Your task to perform on an android device: Do I have any events tomorrow? Image 0: 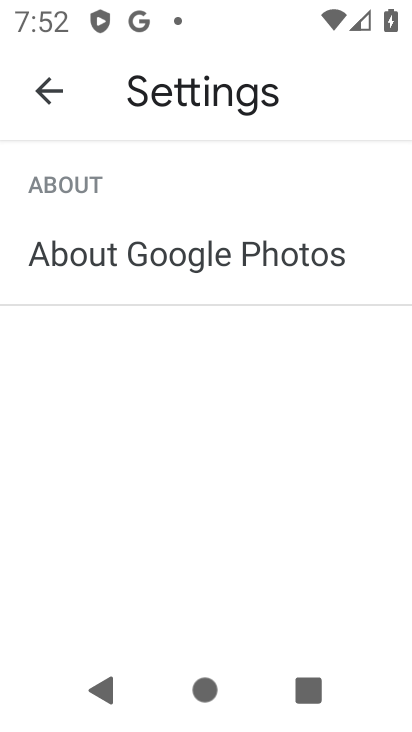
Step 0: press home button
Your task to perform on an android device: Do I have any events tomorrow? Image 1: 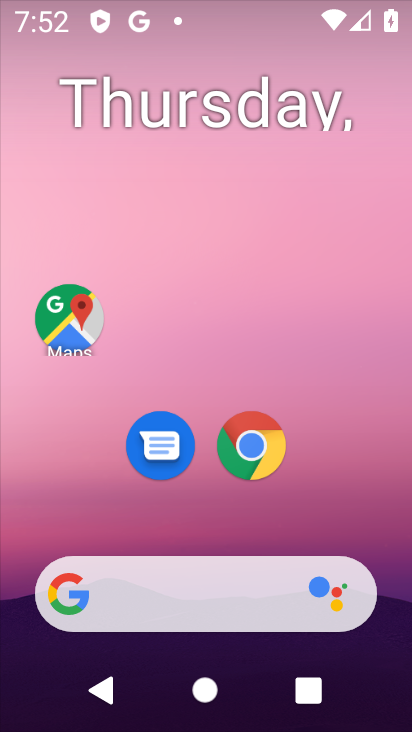
Step 1: drag from (338, 472) to (340, 174)
Your task to perform on an android device: Do I have any events tomorrow? Image 2: 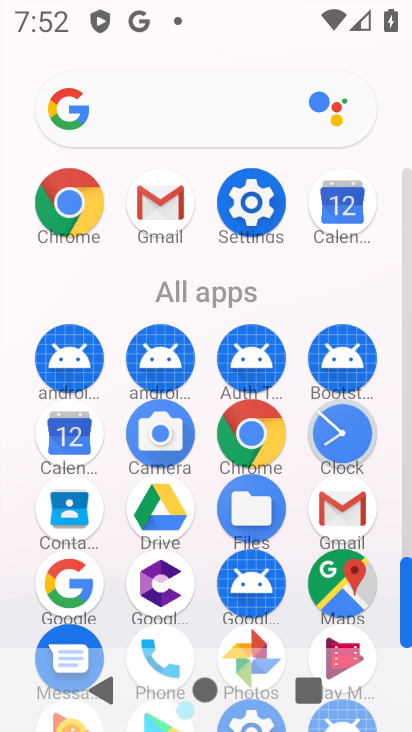
Step 2: click (55, 444)
Your task to perform on an android device: Do I have any events tomorrow? Image 3: 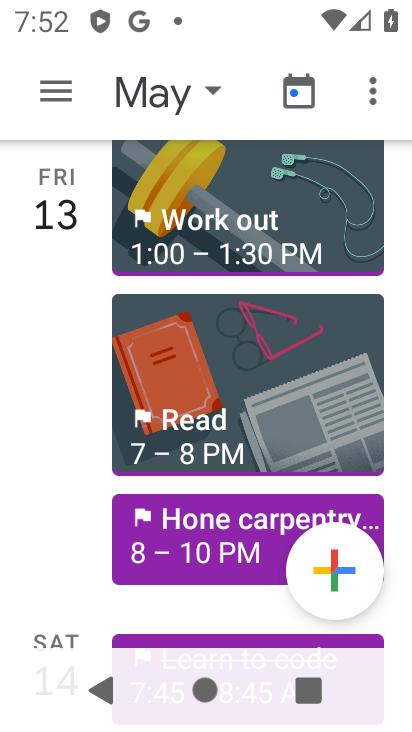
Step 3: task complete